Your task to perform on an android device: turn on the 12-hour format for clock Image 0: 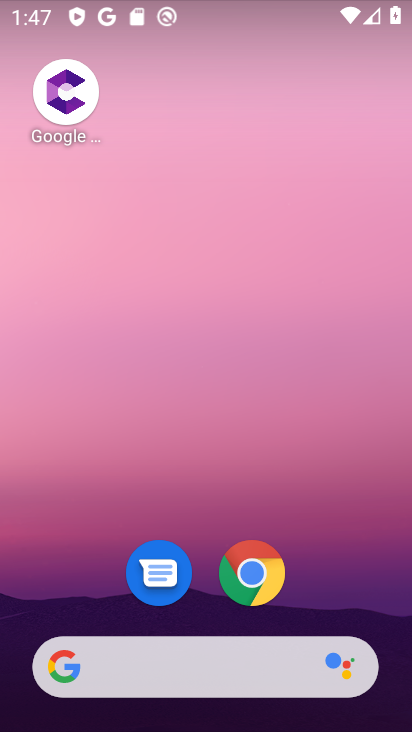
Step 0: drag from (337, 589) to (360, 307)
Your task to perform on an android device: turn on the 12-hour format for clock Image 1: 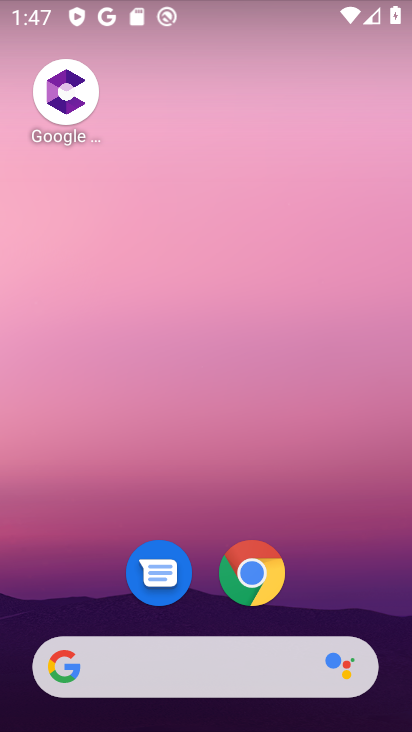
Step 1: drag from (321, 558) to (341, 174)
Your task to perform on an android device: turn on the 12-hour format for clock Image 2: 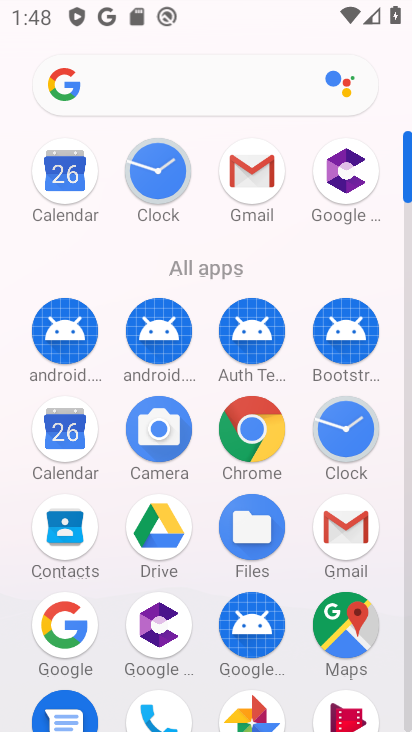
Step 2: click (334, 432)
Your task to perform on an android device: turn on the 12-hour format for clock Image 3: 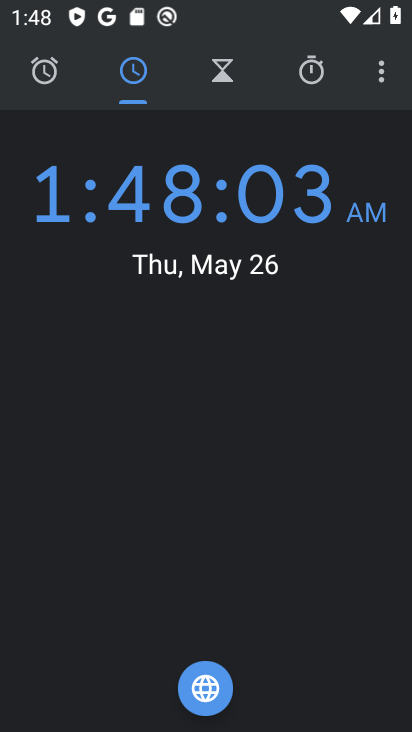
Step 3: click (381, 77)
Your task to perform on an android device: turn on the 12-hour format for clock Image 4: 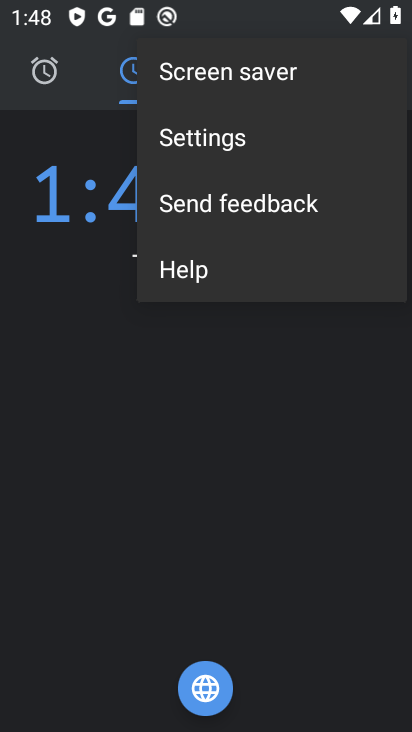
Step 4: click (241, 147)
Your task to perform on an android device: turn on the 12-hour format for clock Image 5: 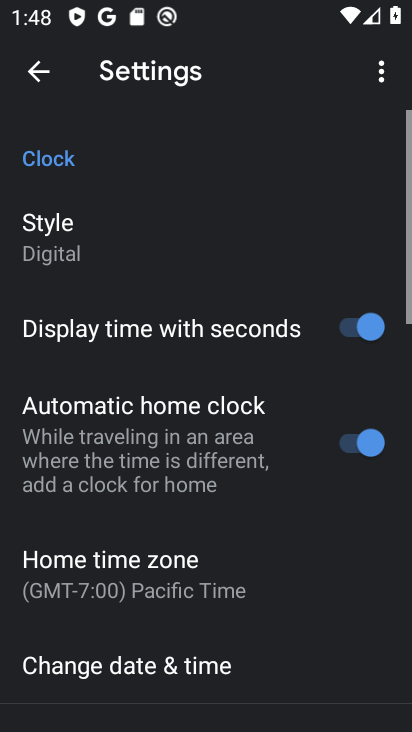
Step 5: drag from (167, 605) to (244, 301)
Your task to perform on an android device: turn on the 12-hour format for clock Image 6: 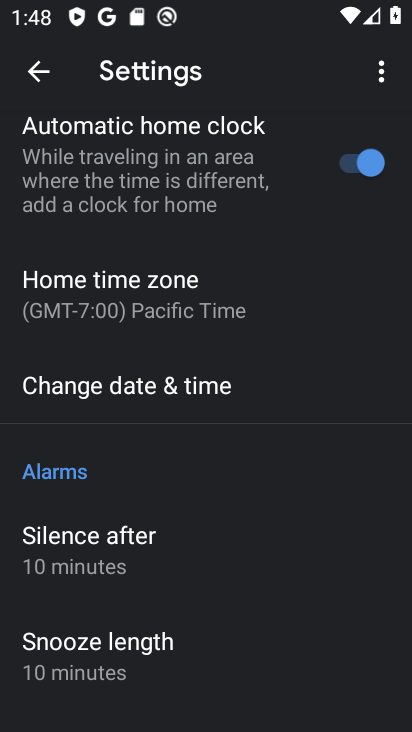
Step 6: click (153, 371)
Your task to perform on an android device: turn on the 12-hour format for clock Image 7: 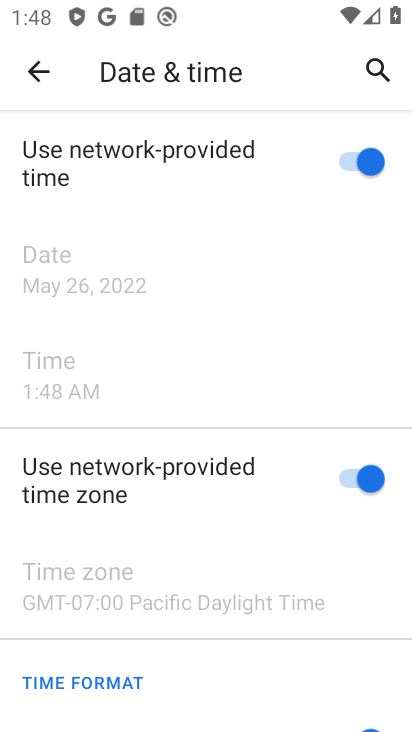
Step 7: drag from (234, 611) to (288, 393)
Your task to perform on an android device: turn on the 12-hour format for clock Image 8: 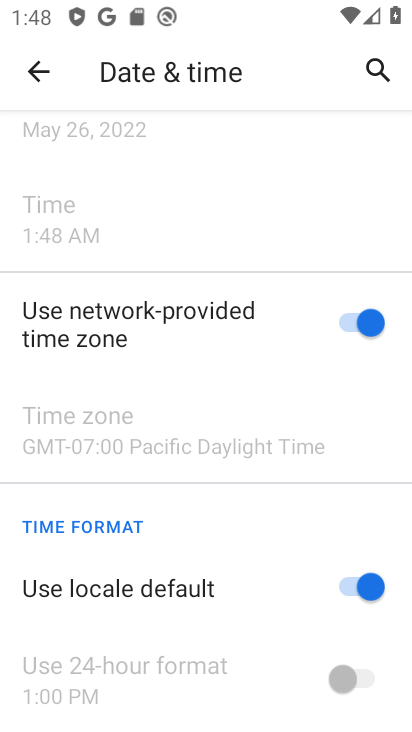
Step 8: drag from (207, 639) to (258, 488)
Your task to perform on an android device: turn on the 12-hour format for clock Image 9: 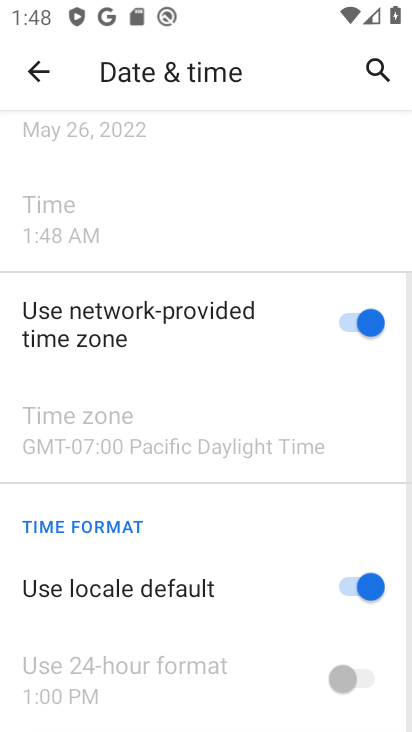
Step 9: click (351, 588)
Your task to perform on an android device: turn on the 12-hour format for clock Image 10: 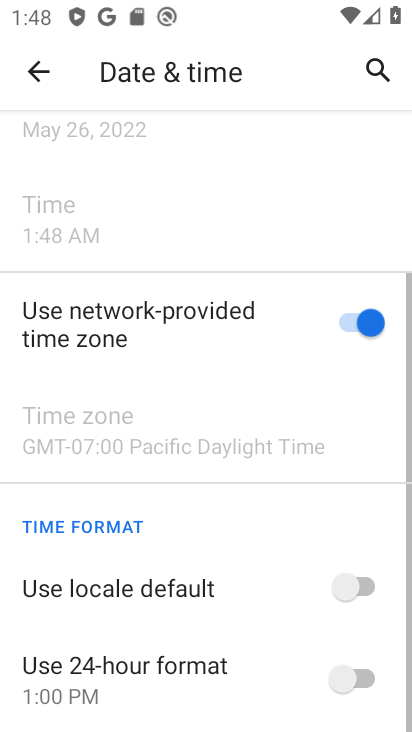
Step 10: click (346, 668)
Your task to perform on an android device: turn on the 12-hour format for clock Image 11: 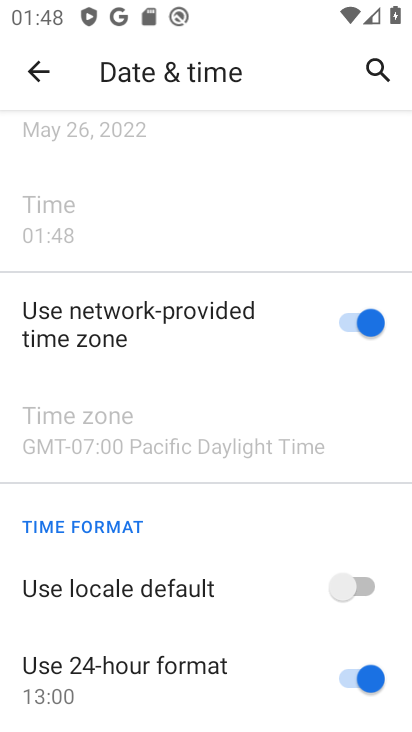
Step 11: task complete